Your task to perform on an android device: move an email to a new category in the gmail app Image 0: 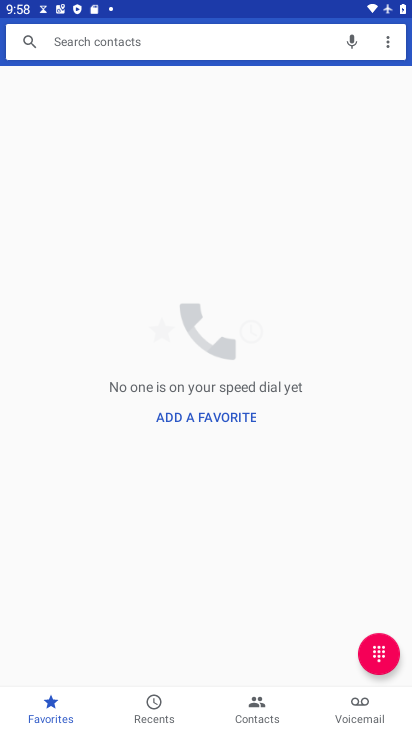
Step 0: press home button
Your task to perform on an android device: move an email to a new category in the gmail app Image 1: 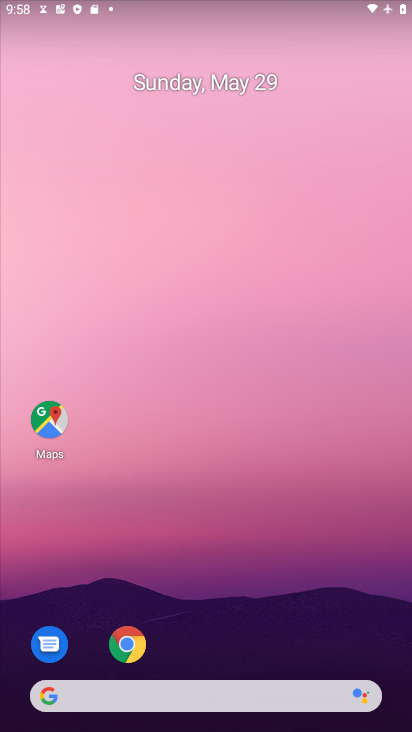
Step 1: drag from (255, 633) to (267, 229)
Your task to perform on an android device: move an email to a new category in the gmail app Image 2: 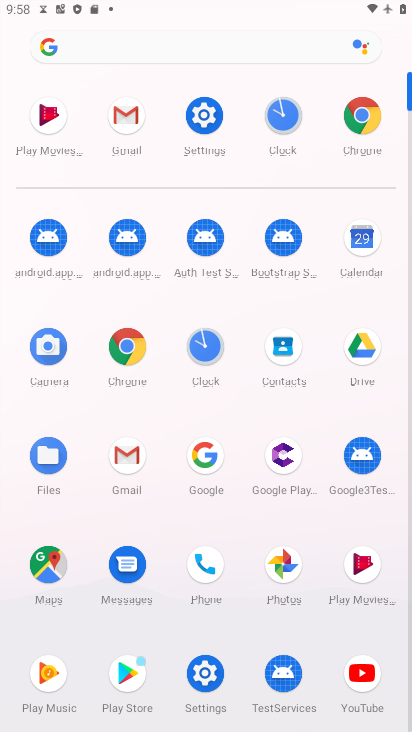
Step 2: click (119, 460)
Your task to perform on an android device: move an email to a new category in the gmail app Image 3: 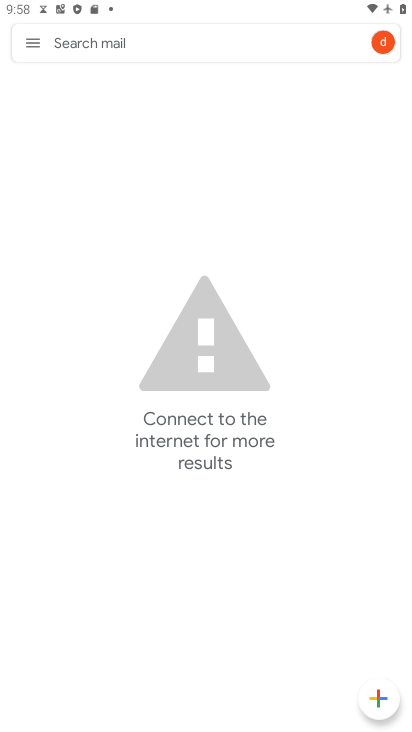
Step 3: click (36, 37)
Your task to perform on an android device: move an email to a new category in the gmail app Image 4: 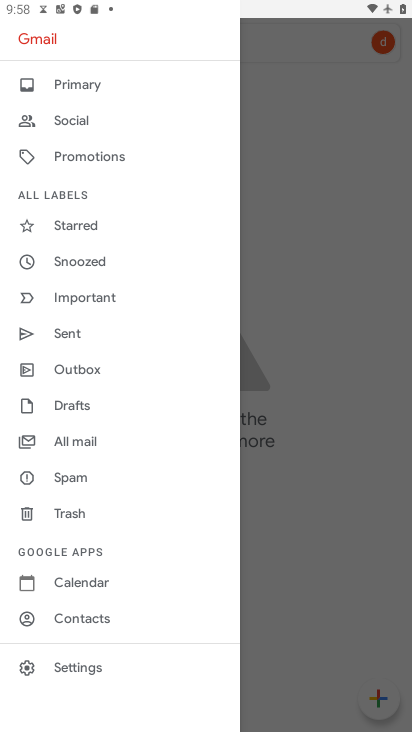
Step 4: click (90, 433)
Your task to perform on an android device: move an email to a new category in the gmail app Image 5: 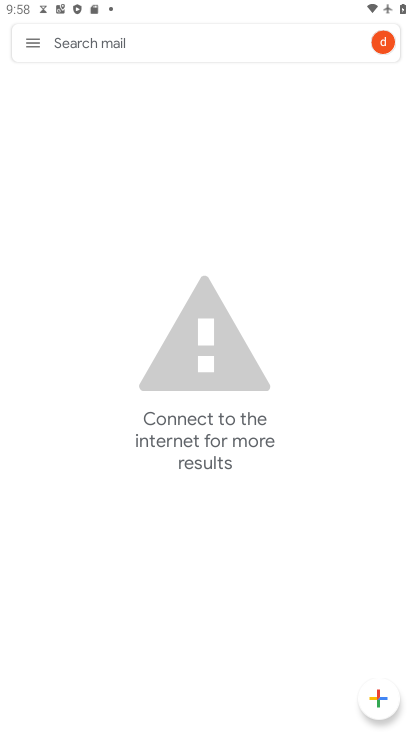
Step 5: task complete